Your task to perform on an android device: toggle sleep mode Image 0: 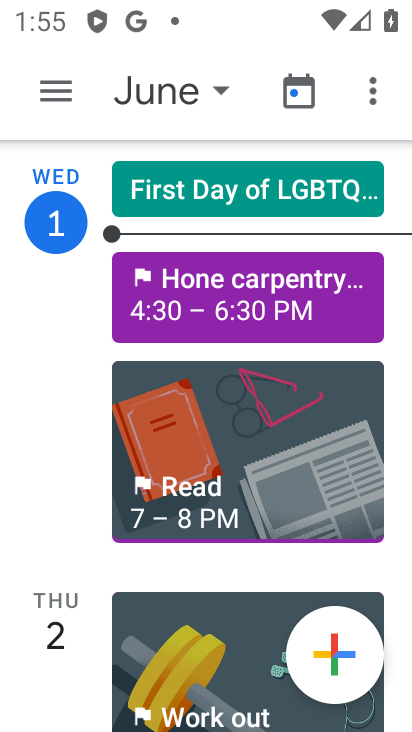
Step 0: press home button
Your task to perform on an android device: toggle sleep mode Image 1: 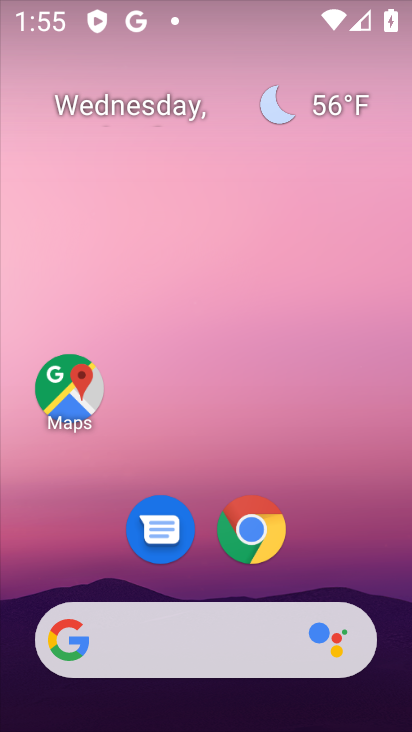
Step 1: drag from (331, 23) to (308, 484)
Your task to perform on an android device: toggle sleep mode Image 2: 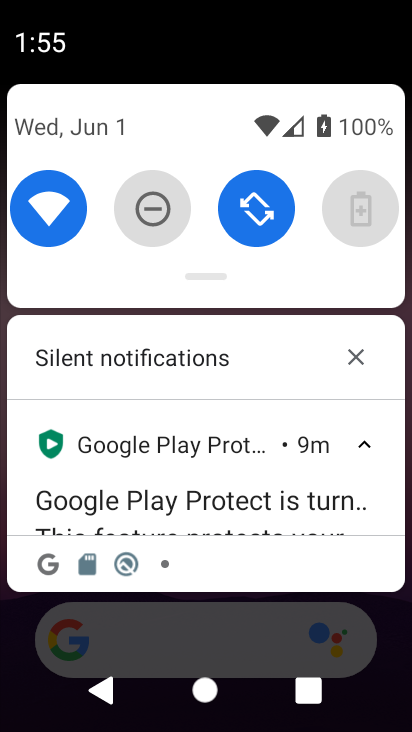
Step 2: drag from (227, 276) to (181, 546)
Your task to perform on an android device: toggle sleep mode Image 3: 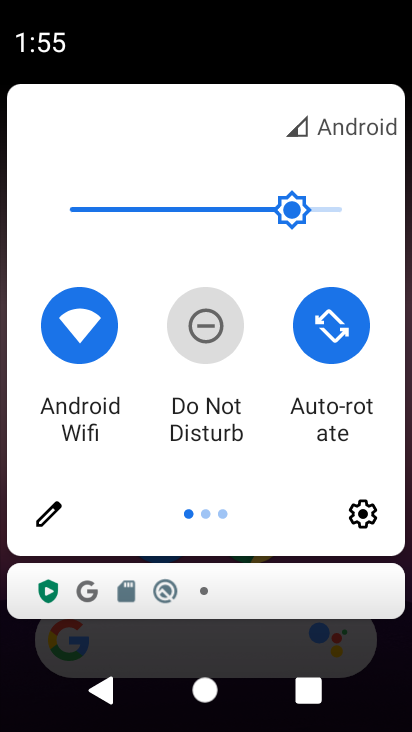
Step 3: drag from (268, 401) to (18, 397)
Your task to perform on an android device: toggle sleep mode Image 4: 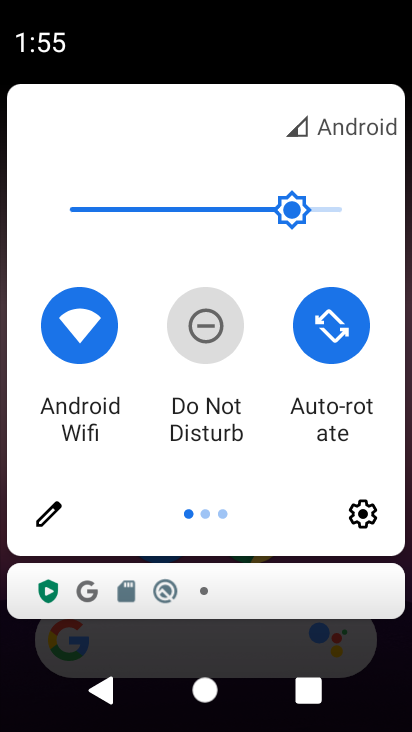
Step 4: click (48, 512)
Your task to perform on an android device: toggle sleep mode Image 5: 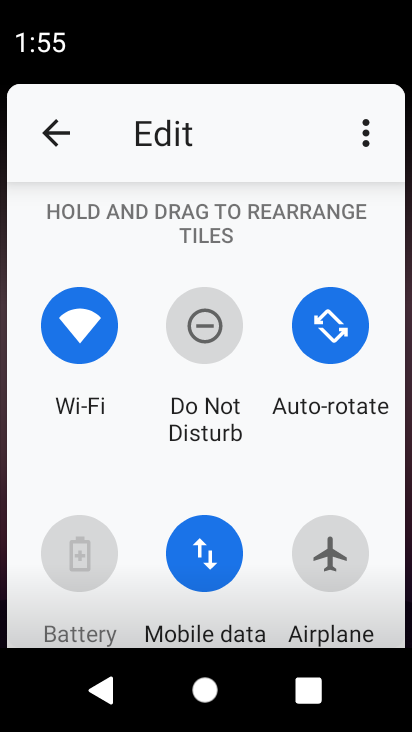
Step 5: task complete